Your task to perform on an android device: turn on notifications settings in the gmail app Image 0: 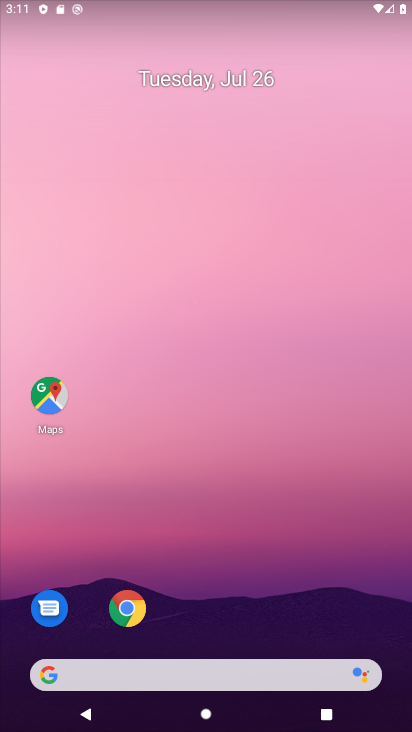
Step 0: drag from (409, 670) to (336, 96)
Your task to perform on an android device: turn on notifications settings in the gmail app Image 1: 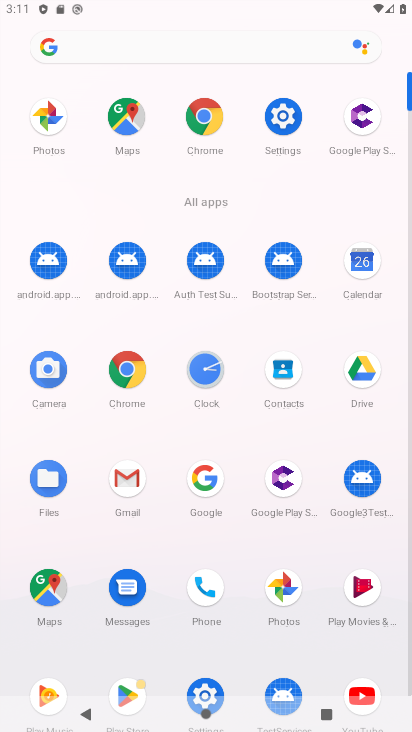
Step 1: click (120, 467)
Your task to perform on an android device: turn on notifications settings in the gmail app Image 2: 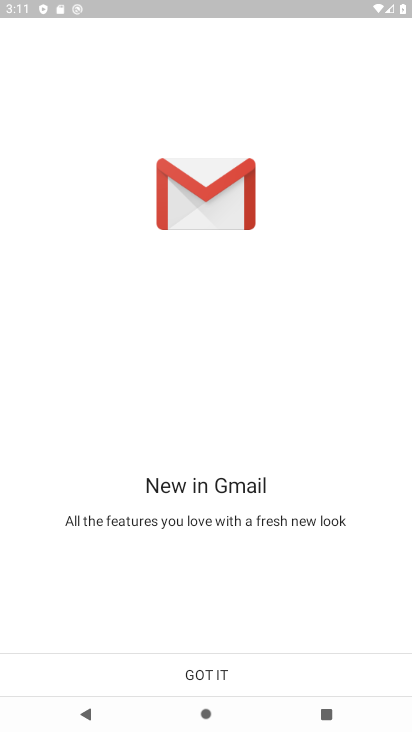
Step 2: click (173, 669)
Your task to perform on an android device: turn on notifications settings in the gmail app Image 3: 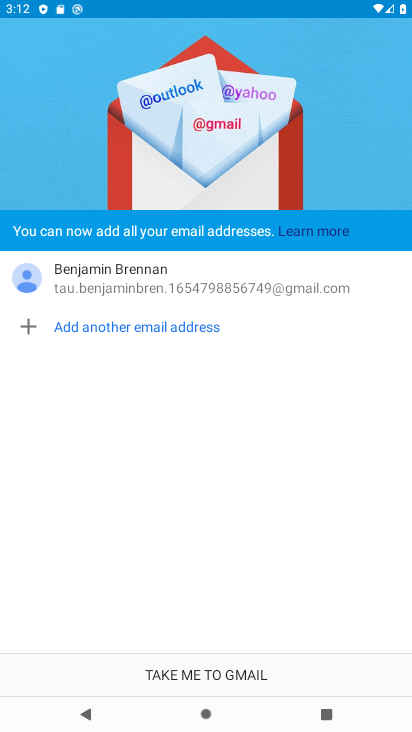
Step 3: click (162, 678)
Your task to perform on an android device: turn on notifications settings in the gmail app Image 4: 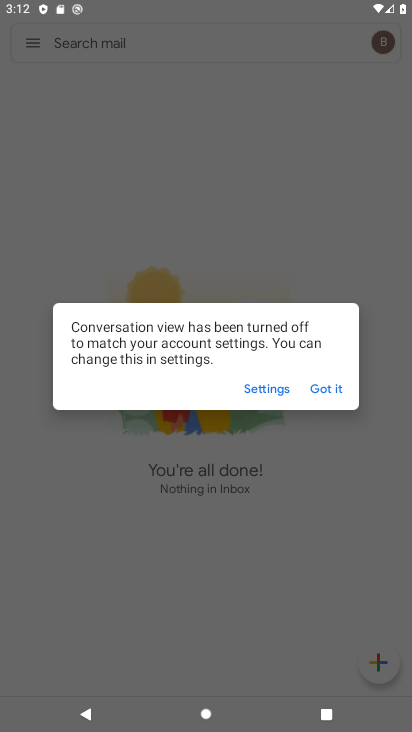
Step 4: click (320, 373)
Your task to perform on an android device: turn on notifications settings in the gmail app Image 5: 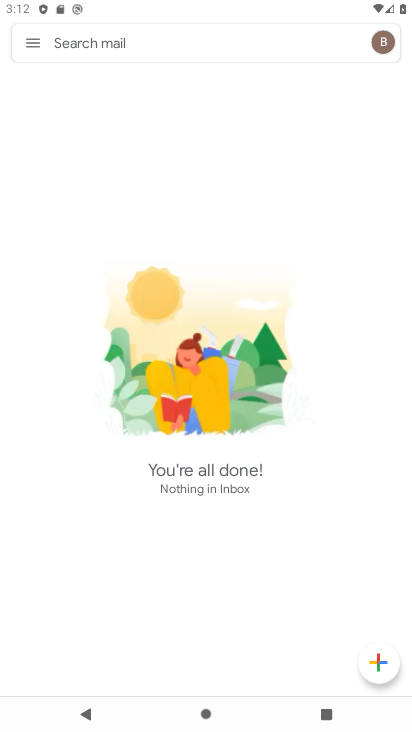
Step 5: click (317, 387)
Your task to perform on an android device: turn on notifications settings in the gmail app Image 6: 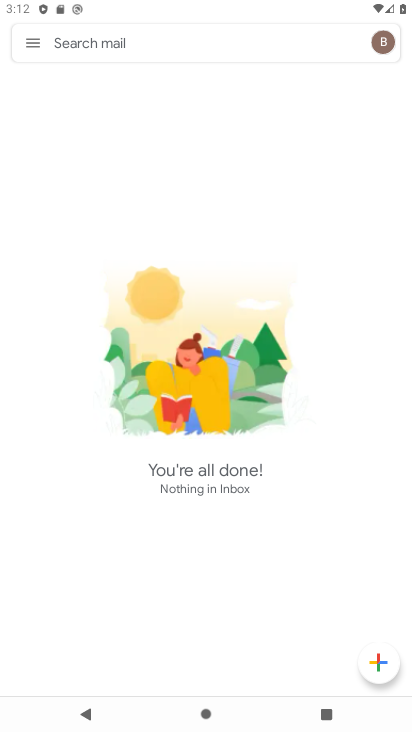
Step 6: click (40, 38)
Your task to perform on an android device: turn on notifications settings in the gmail app Image 7: 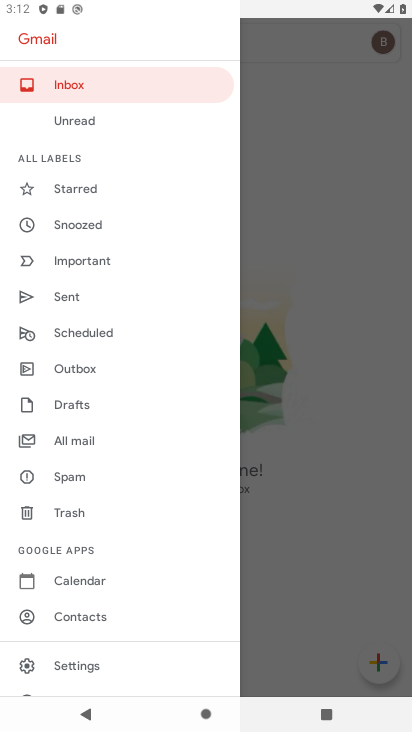
Step 7: drag from (50, 666) to (50, 610)
Your task to perform on an android device: turn on notifications settings in the gmail app Image 8: 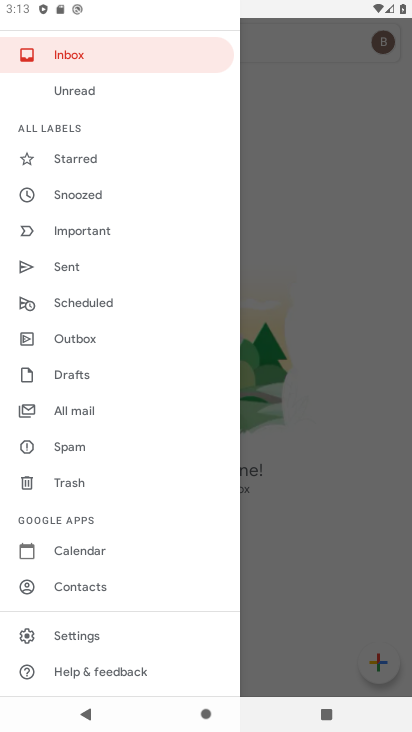
Step 8: click (57, 630)
Your task to perform on an android device: turn on notifications settings in the gmail app Image 9: 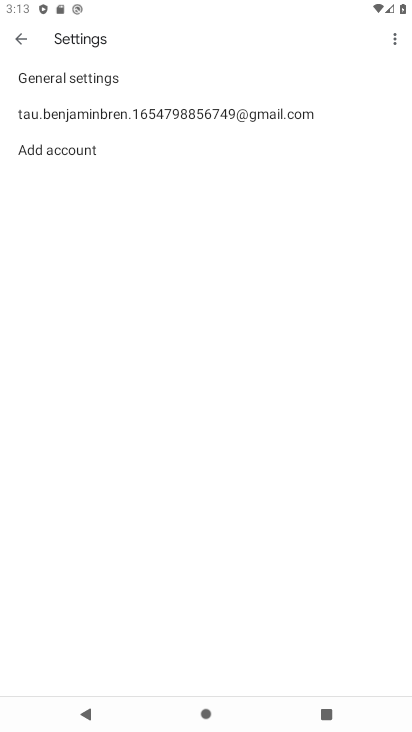
Step 9: click (73, 111)
Your task to perform on an android device: turn on notifications settings in the gmail app Image 10: 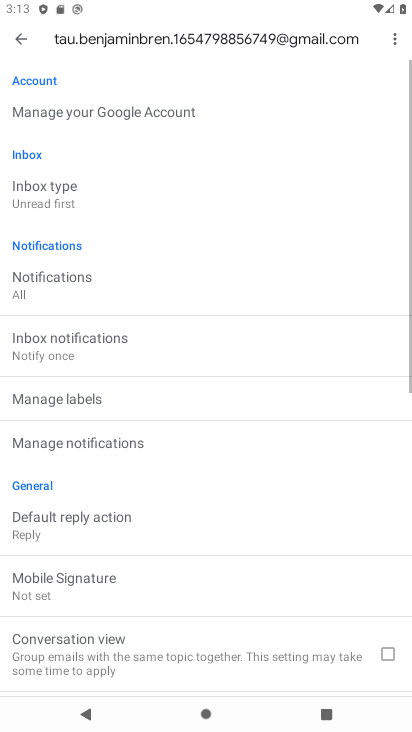
Step 10: click (60, 286)
Your task to perform on an android device: turn on notifications settings in the gmail app Image 11: 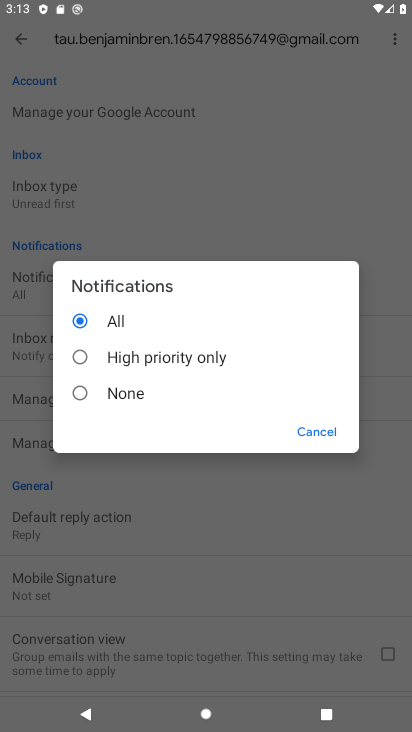
Step 11: task complete